Your task to perform on an android device: delete a single message in the gmail app Image 0: 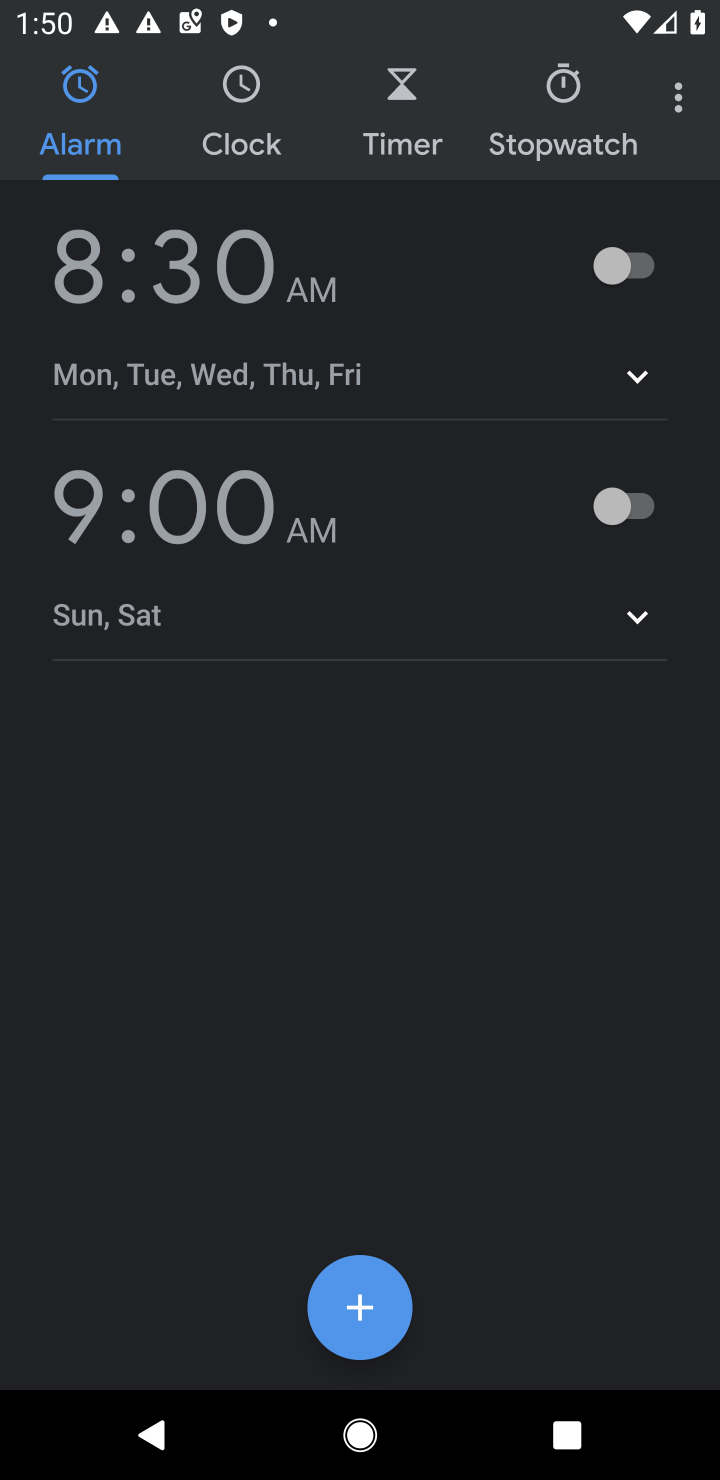
Step 0: press home button
Your task to perform on an android device: delete a single message in the gmail app Image 1: 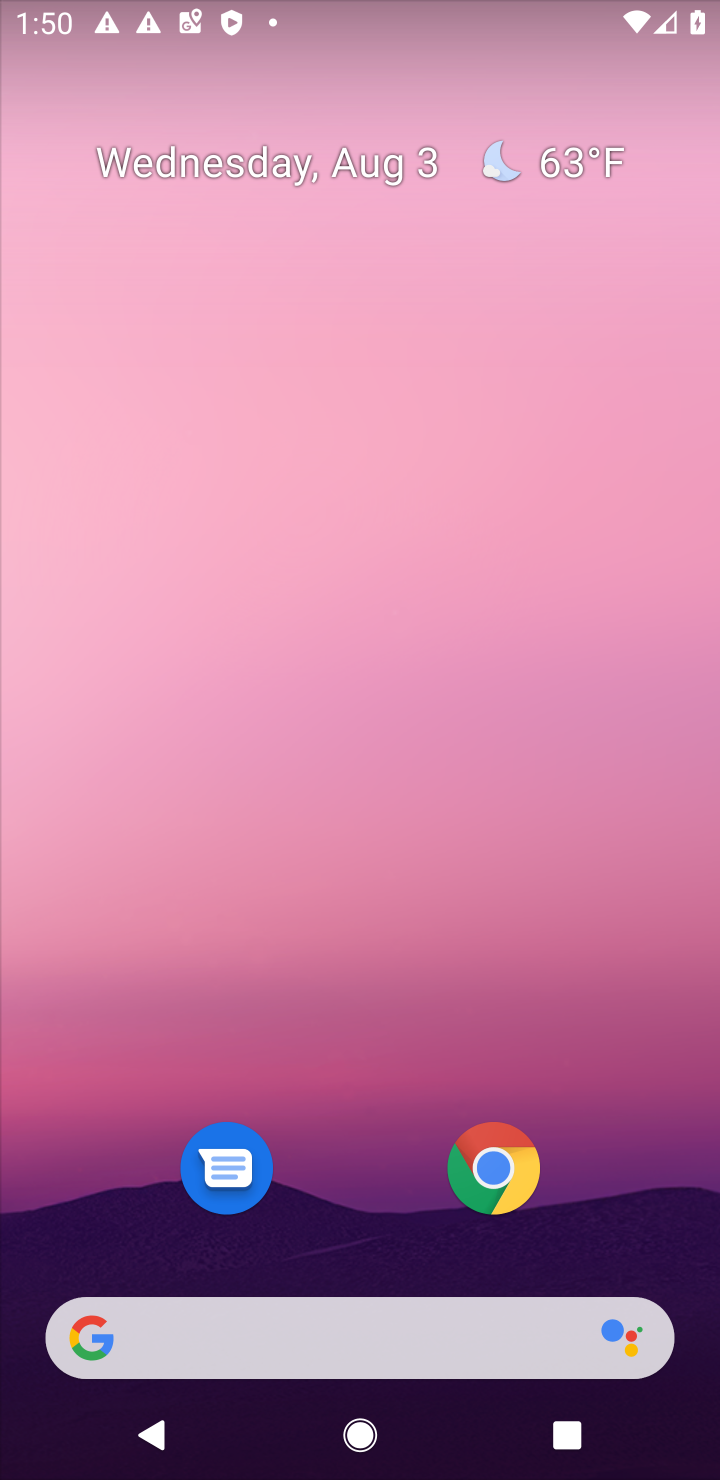
Step 1: drag from (671, 1236) to (609, 298)
Your task to perform on an android device: delete a single message in the gmail app Image 2: 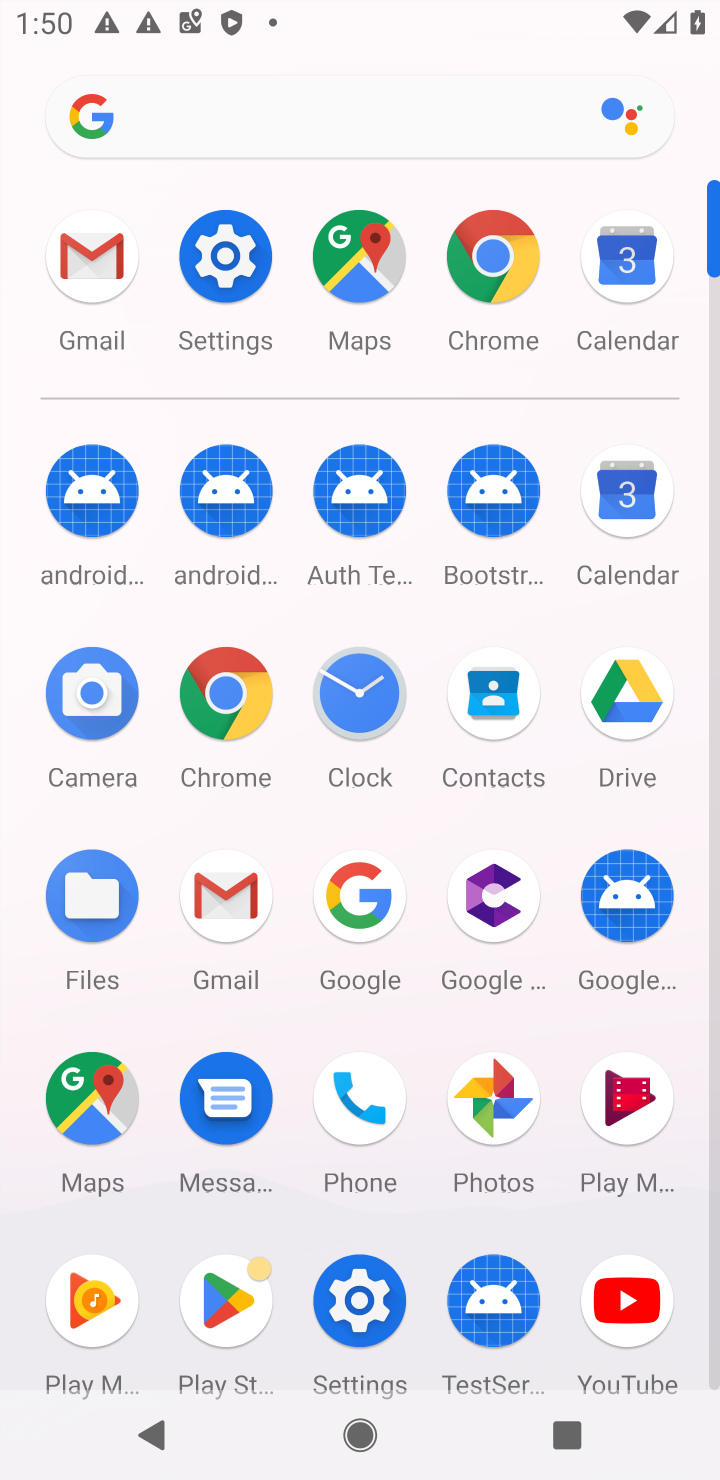
Step 2: click (223, 892)
Your task to perform on an android device: delete a single message in the gmail app Image 3: 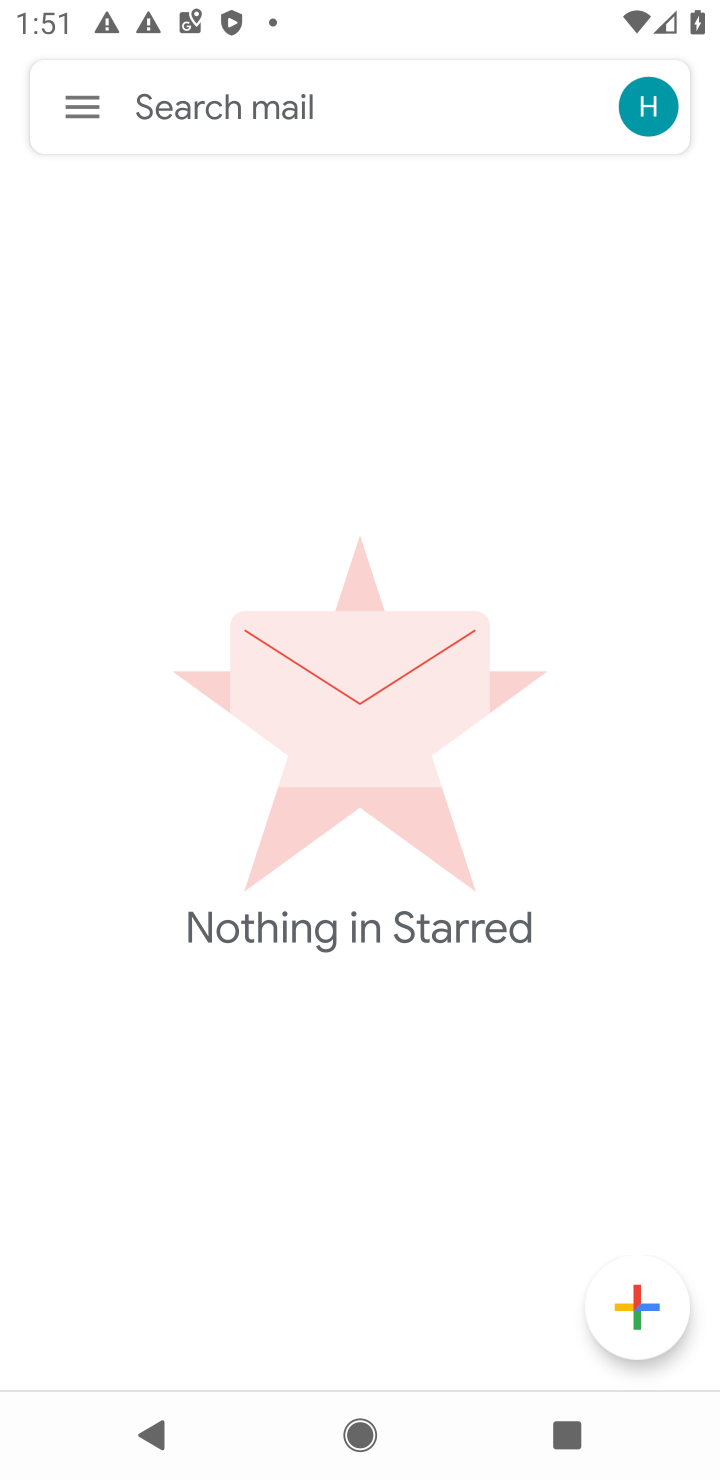
Step 3: click (83, 118)
Your task to perform on an android device: delete a single message in the gmail app Image 4: 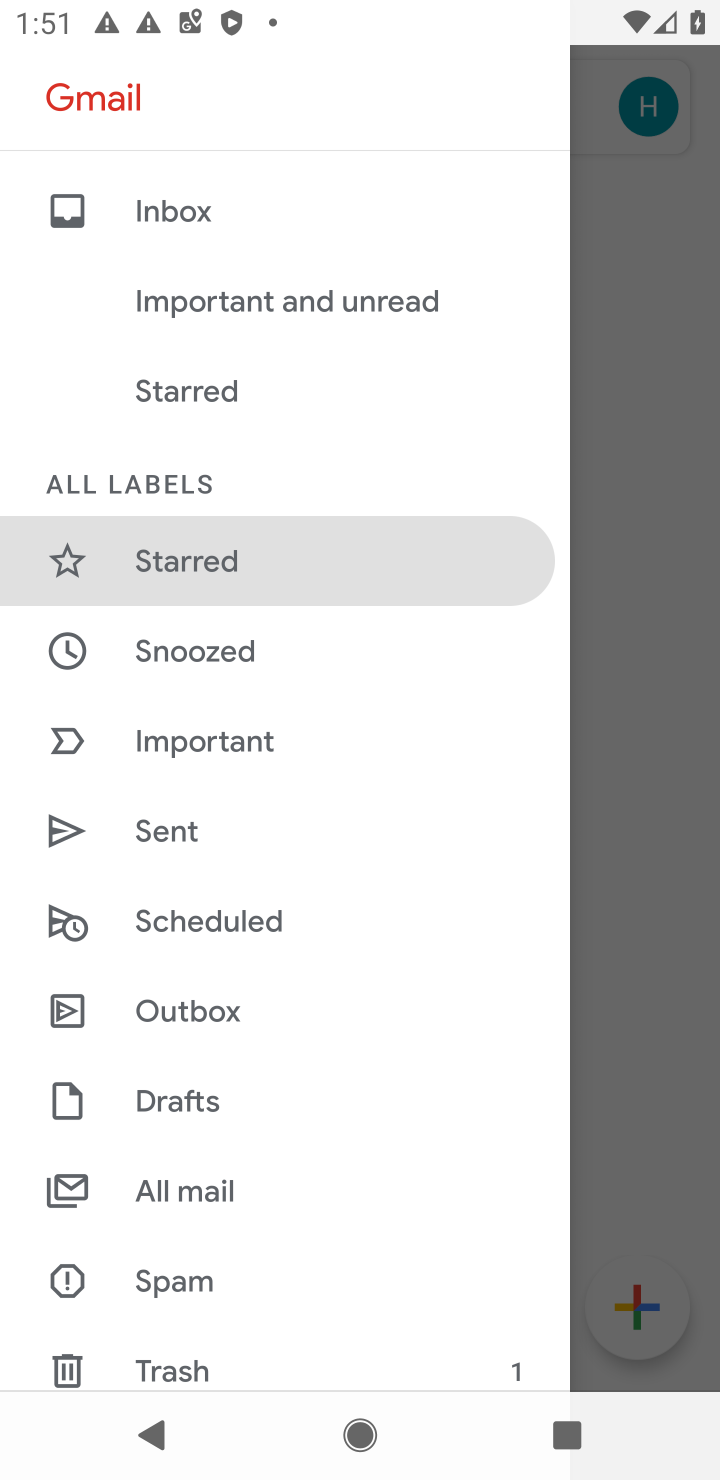
Step 4: click (187, 1186)
Your task to perform on an android device: delete a single message in the gmail app Image 5: 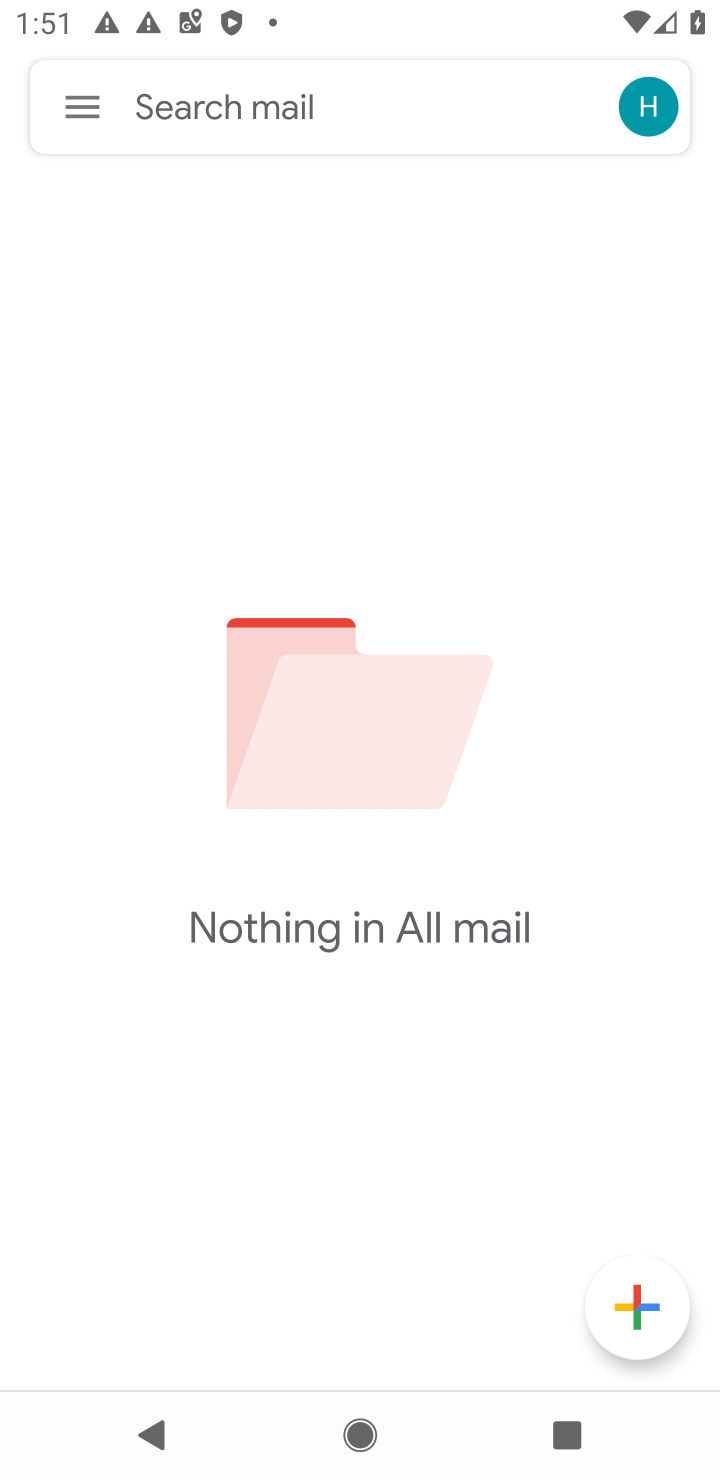
Step 5: task complete